Your task to perform on an android device: Play the last video I watched on Youtube Image 0: 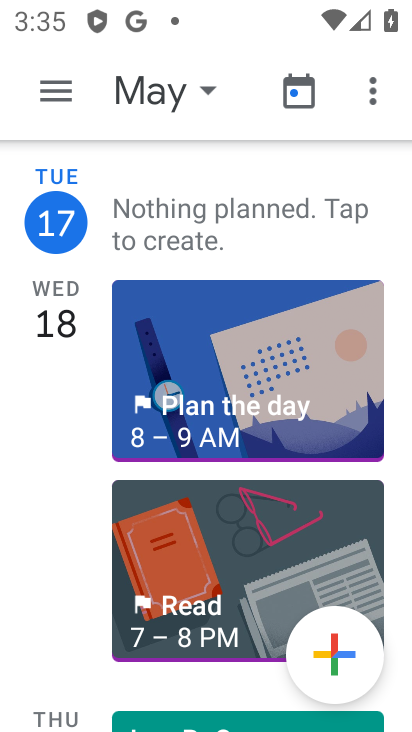
Step 0: press back button
Your task to perform on an android device: Play the last video I watched on Youtube Image 1: 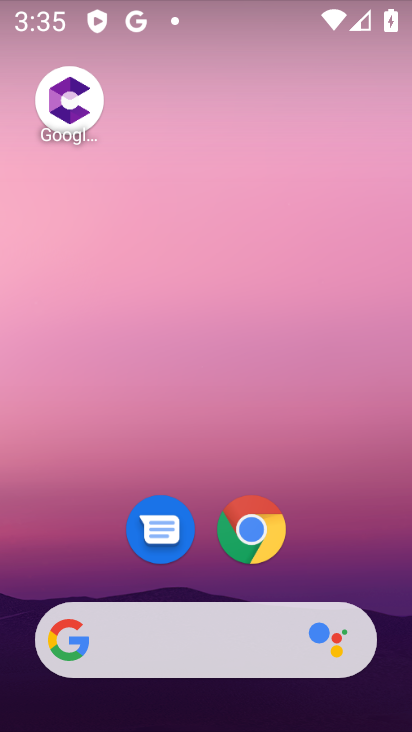
Step 1: drag from (336, 701) to (223, 30)
Your task to perform on an android device: Play the last video I watched on Youtube Image 2: 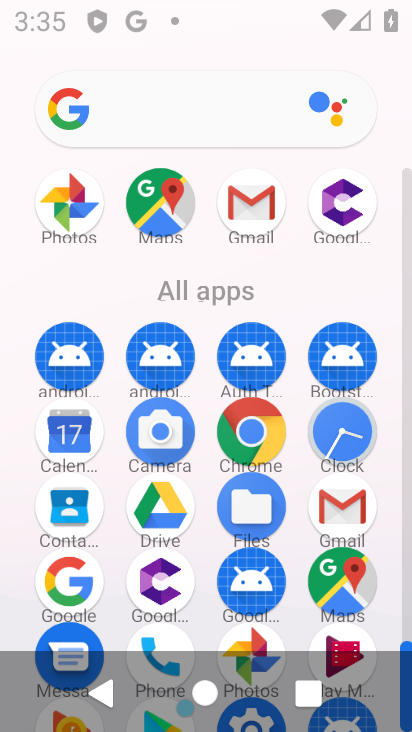
Step 2: drag from (333, 639) to (244, 164)
Your task to perform on an android device: Play the last video I watched on Youtube Image 3: 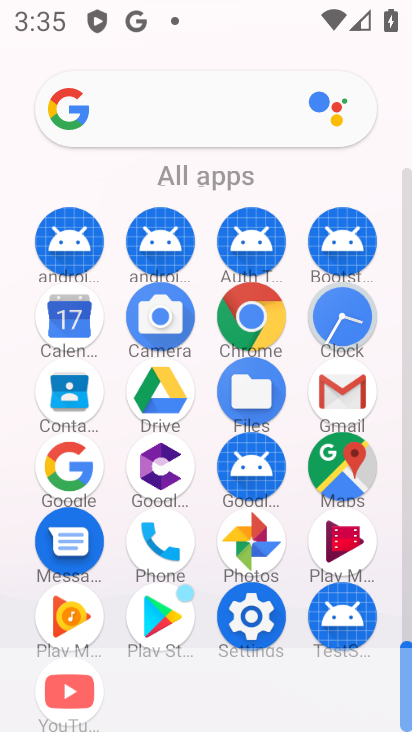
Step 3: click (89, 687)
Your task to perform on an android device: Play the last video I watched on Youtube Image 4: 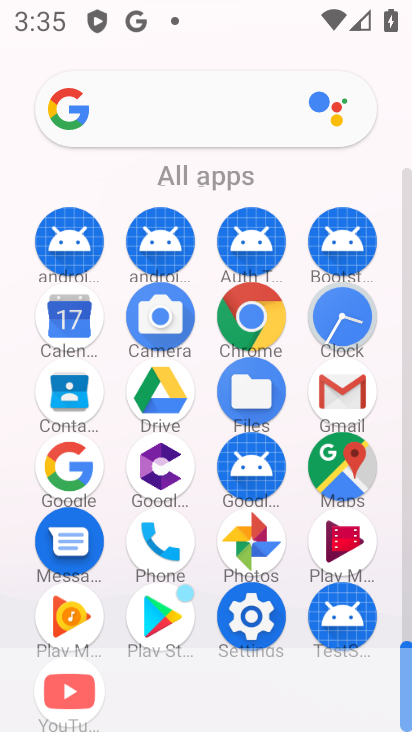
Step 4: click (86, 689)
Your task to perform on an android device: Play the last video I watched on Youtube Image 5: 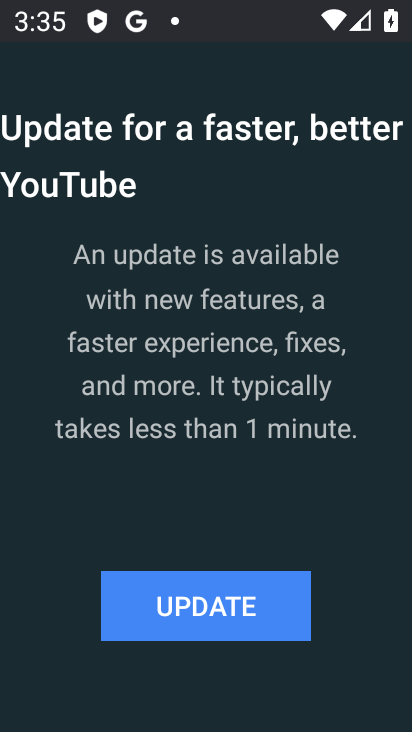
Step 5: click (211, 610)
Your task to perform on an android device: Play the last video I watched on Youtube Image 6: 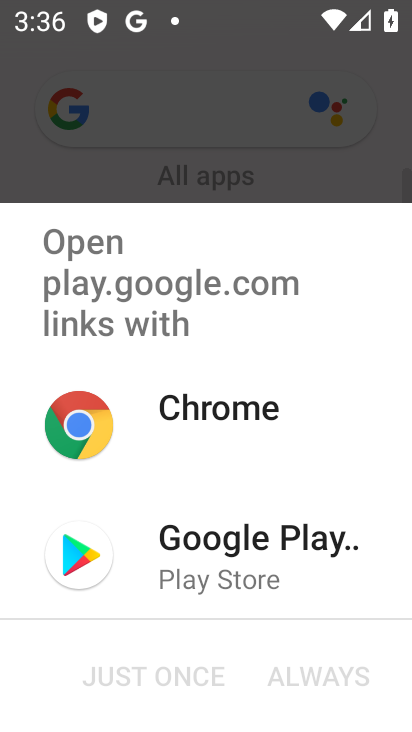
Step 6: click (228, 556)
Your task to perform on an android device: Play the last video I watched on Youtube Image 7: 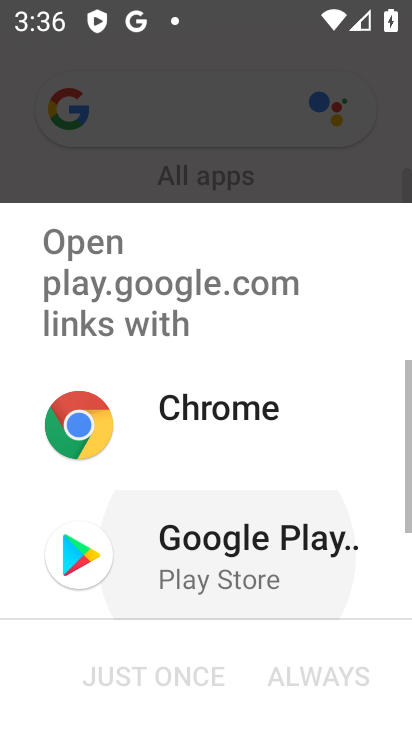
Step 7: click (228, 556)
Your task to perform on an android device: Play the last video I watched on Youtube Image 8: 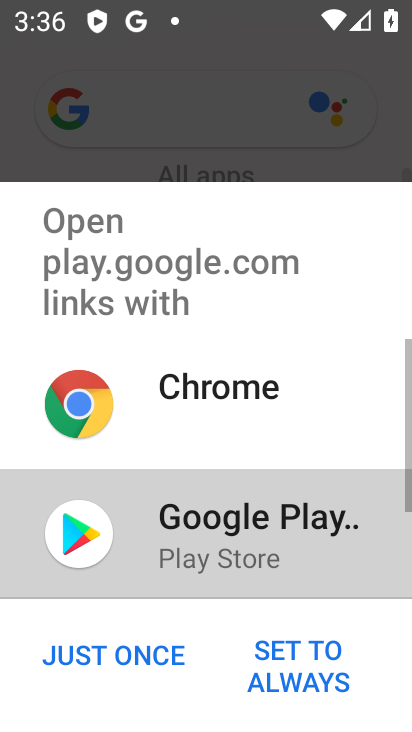
Step 8: click (228, 556)
Your task to perform on an android device: Play the last video I watched on Youtube Image 9: 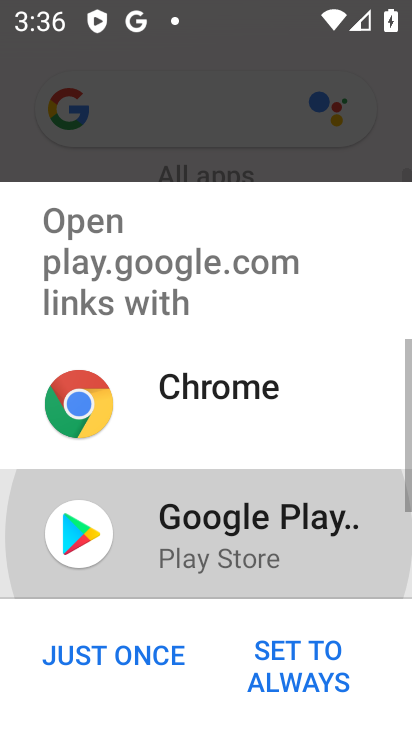
Step 9: click (227, 557)
Your task to perform on an android device: Play the last video I watched on Youtube Image 10: 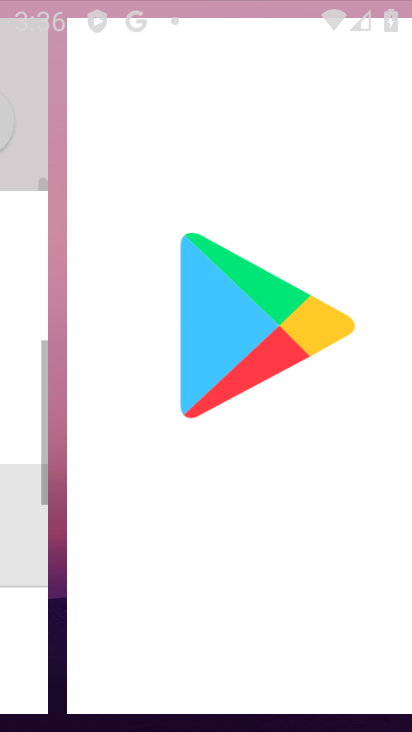
Step 10: click (238, 547)
Your task to perform on an android device: Play the last video I watched on Youtube Image 11: 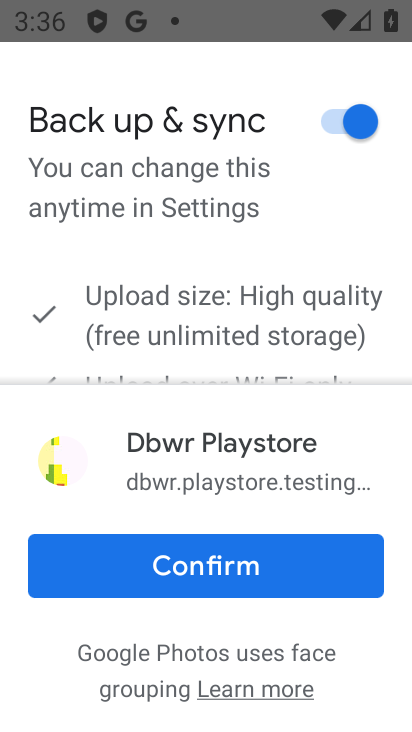
Step 11: click (225, 566)
Your task to perform on an android device: Play the last video I watched on Youtube Image 12: 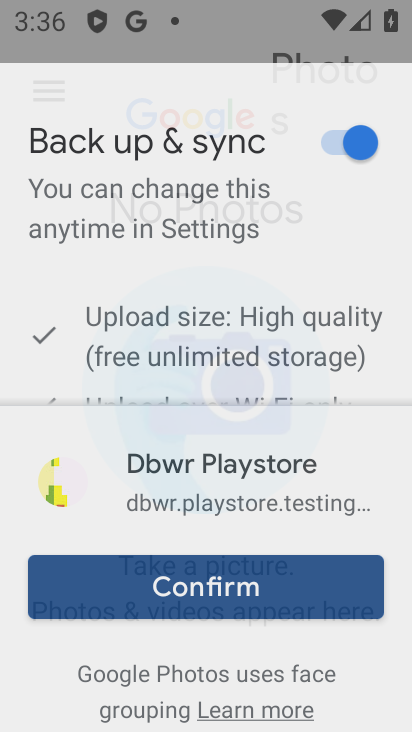
Step 12: click (225, 566)
Your task to perform on an android device: Play the last video I watched on Youtube Image 13: 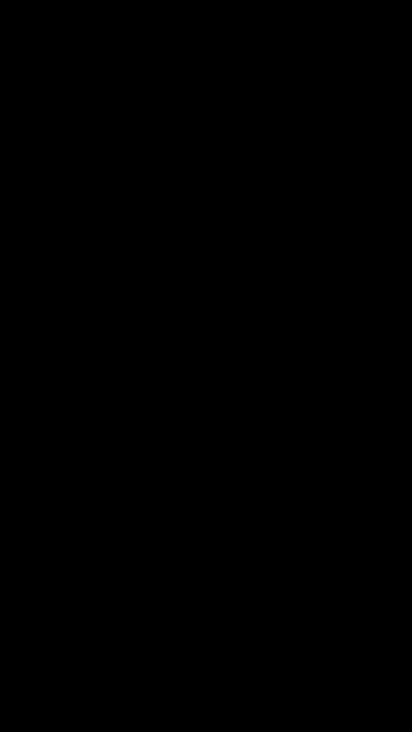
Step 13: click (225, 566)
Your task to perform on an android device: Play the last video I watched on Youtube Image 14: 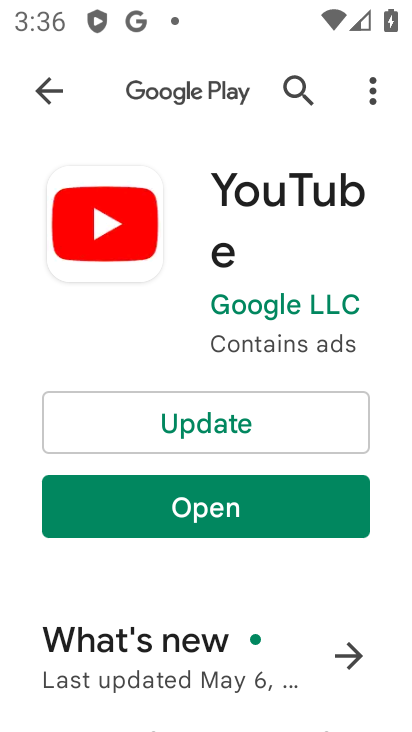
Step 14: click (198, 424)
Your task to perform on an android device: Play the last video I watched on Youtube Image 15: 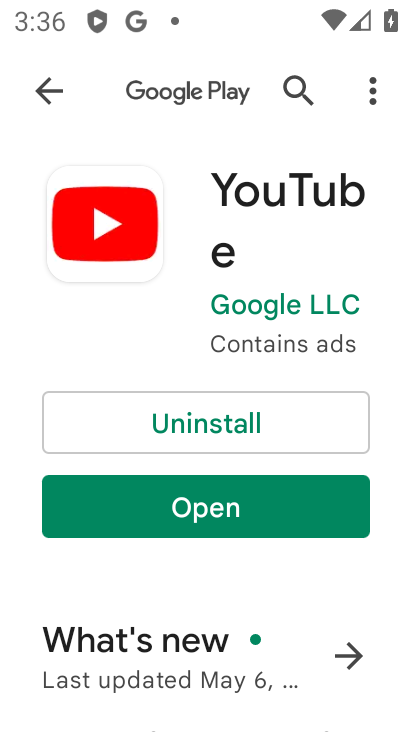
Step 15: click (227, 500)
Your task to perform on an android device: Play the last video I watched on Youtube Image 16: 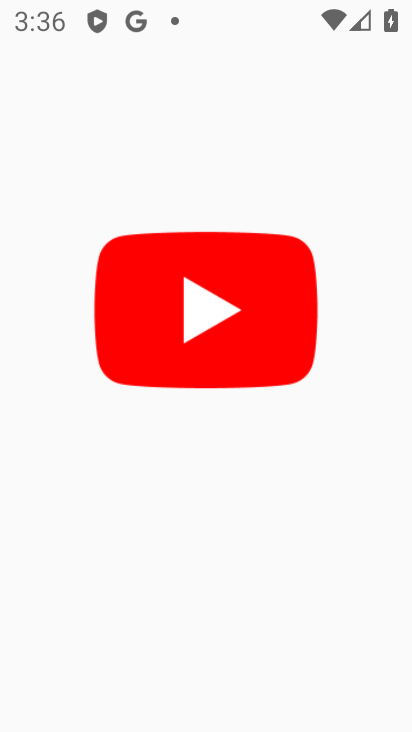
Step 16: click (291, 503)
Your task to perform on an android device: Play the last video I watched on Youtube Image 17: 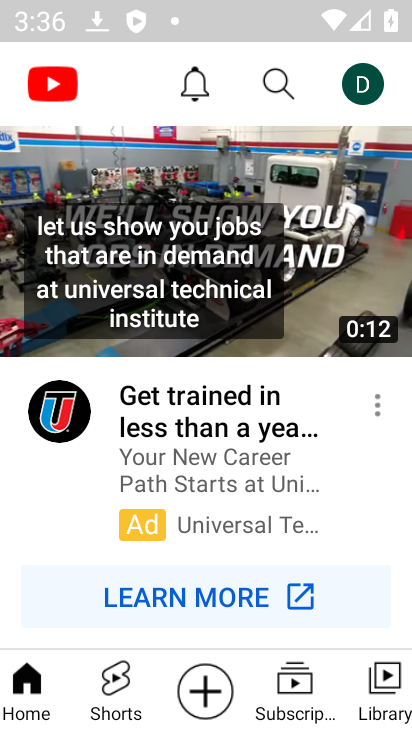
Step 17: task complete